Your task to perform on an android device: Search for vegetarian restaurants on Maps Image 0: 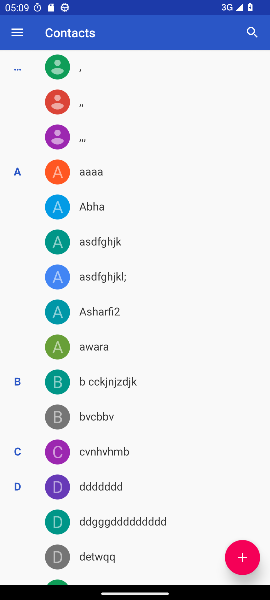
Step 0: press home button
Your task to perform on an android device: Search for vegetarian restaurants on Maps Image 1: 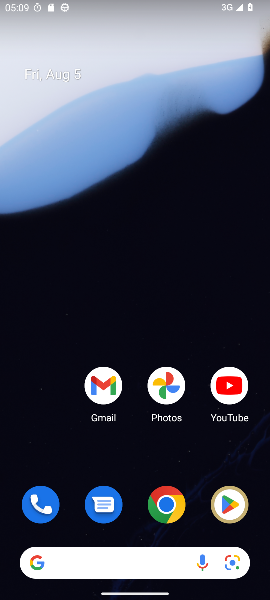
Step 1: drag from (13, 591) to (132, 312)
Your task to perform on an android device: Search for vegetarian restaurants on Maps Image 2: 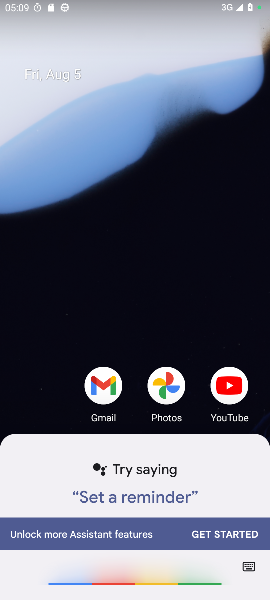
Step 2: press home button
Your task to perform on an android device: Search for vegetarian restaurants on Maps Image 3: 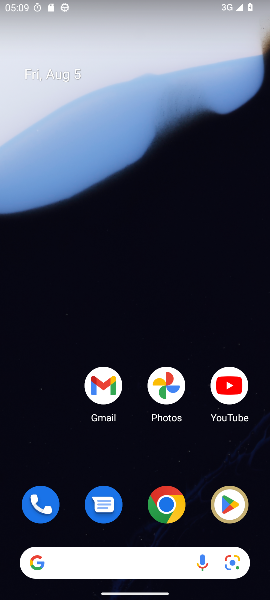
Step 3: drag from (15, 567) to (113, 85)
Your task to perform on an android device: Search for vegetarian restaurants on Maps Image 4: 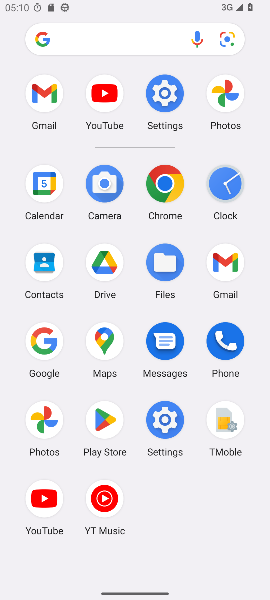
Step 4: click (104, 352)
Your task to perform on an android device: Search for vegetarian restaurants on Maps Image 5: 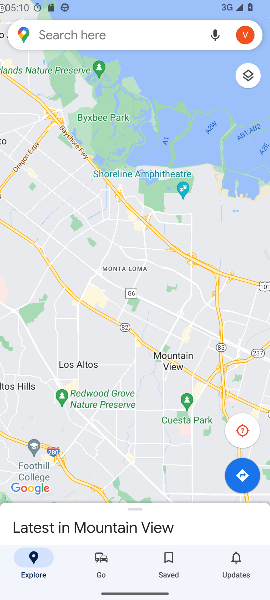
Step 5: click (57, 36)
Your task to perform on an android device: Search for vegetarian restaurants on Maps Image 6: 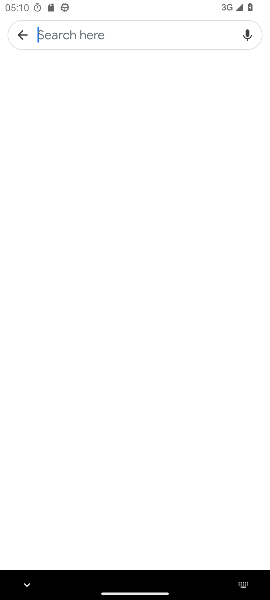
Step 6: type "vegetarian restaurants "
Your task to perform on an android device: Search for vegetarian restaurants on Maps Image 7: 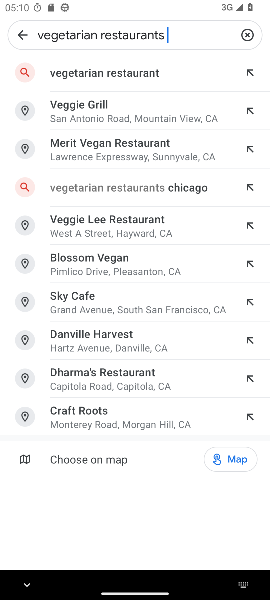
Step 7: click (106, 66)
Your task to perform on an android device: Search for vegetarian restaurants on Maps Image 8: 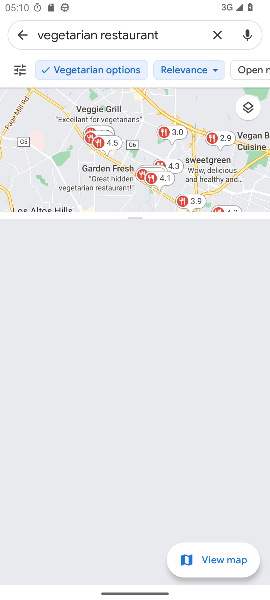
Step 8: task complete